Your task to perform on an android device: check google app version Image 0: 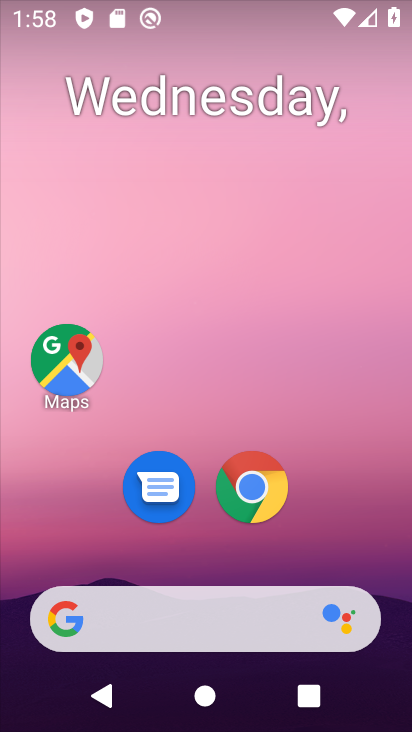
Step 0: click (68, 605)
Your task to perform on an android device: check google app version Image 1: 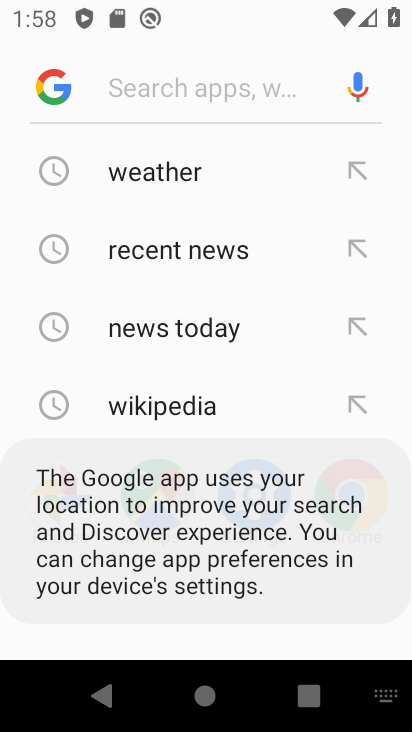
Step 1: click (44, 70)
Your task to perform on an android device: check google app version Image 2: 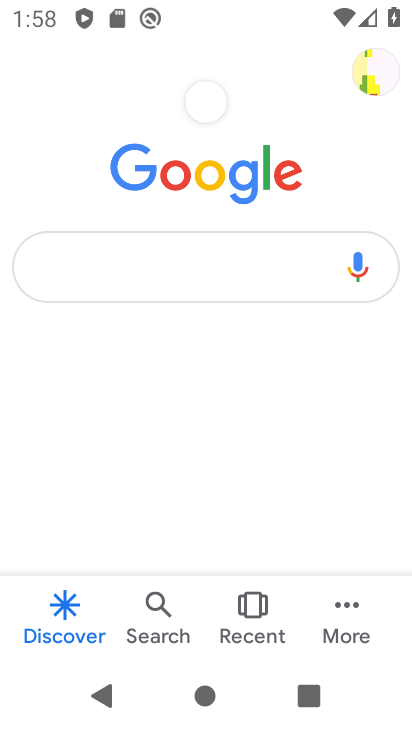
Step 2: click (357, 613)
Your task to perform on an android device: check google app version Image 3: 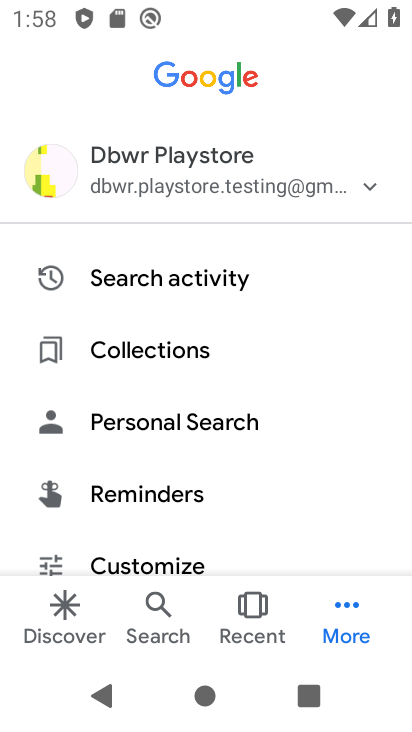
Step 3: drag from (170, 498) to (229, 153)
Your task to perform on an android device: check google app version Image 4: 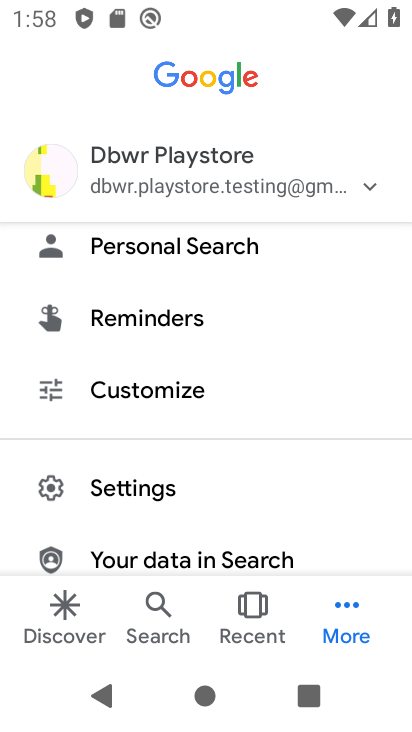
Step 4: click (136, 493)
Your task to perform on an android device: check google app version Image 5: 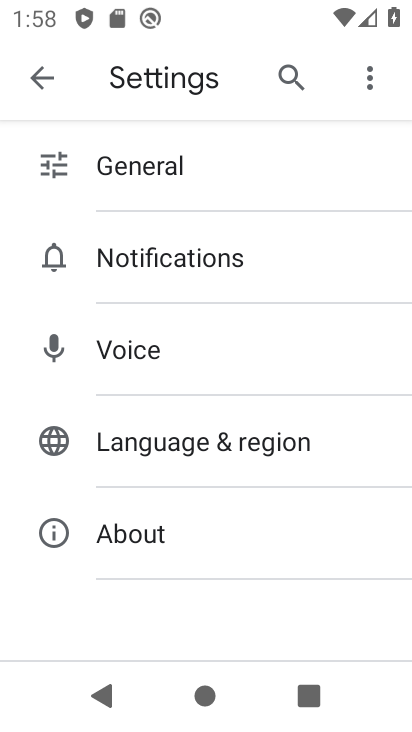
Step 5: click (139, 532)
Your task to perform on an android device: check google app version Image 6: 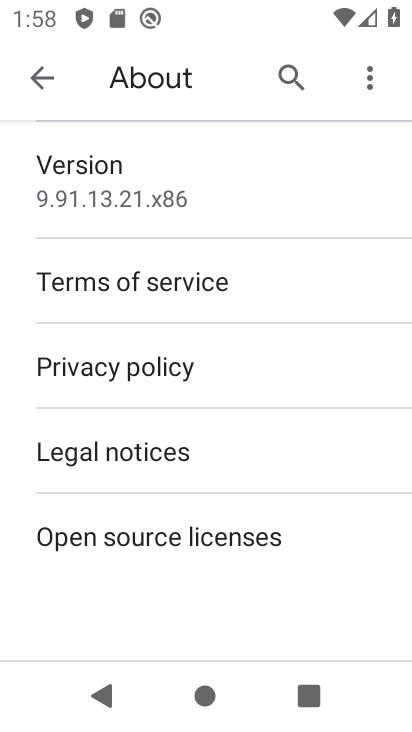
Step 6: task complete